Your task to perform on an android device: Set the phone to "Do not disturb". Image 0: 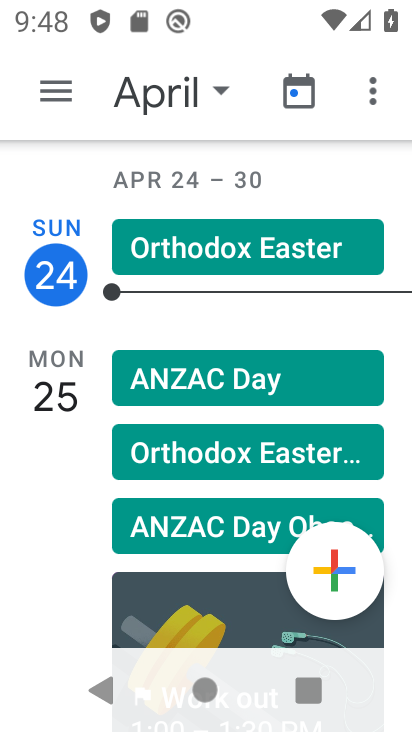
Step 0: press home button
Your task to perform on an android device: Set the phone to "Do not disturb". Image 1: 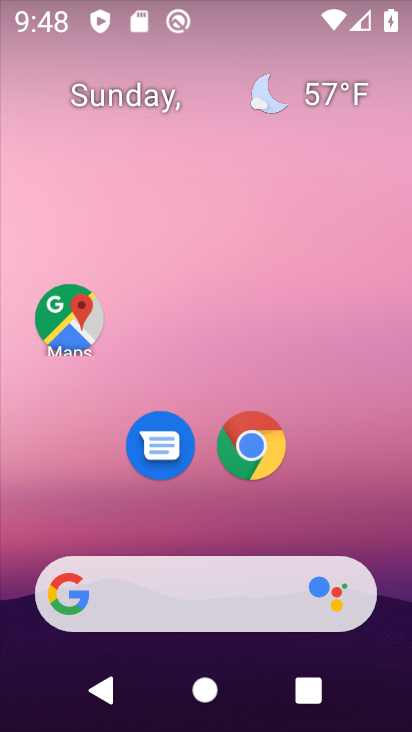
Step 1: drag from (136, 583) to (187, 123)
Your task to perform on an android device: Set the phone to "Do not disturb". Image 2: 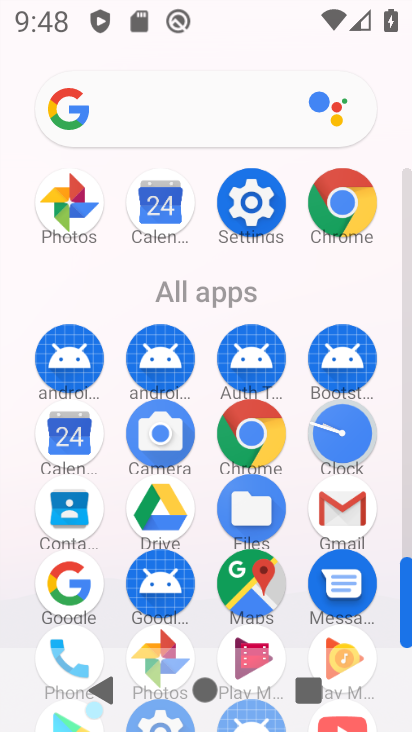
Step 2: click (238, 206)
Your task to perform on an android device: Set the phone to "Do not disturb". Image 3: 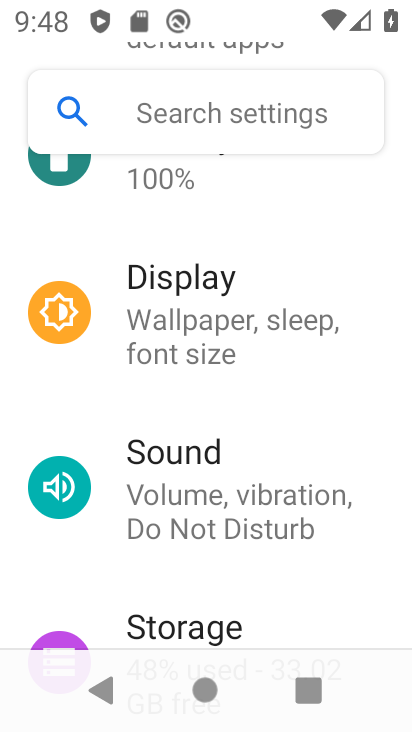
Step 3: click (202, 476)
Your task to perform on an android device: Set the phone to "Do not disturb". Image 4: 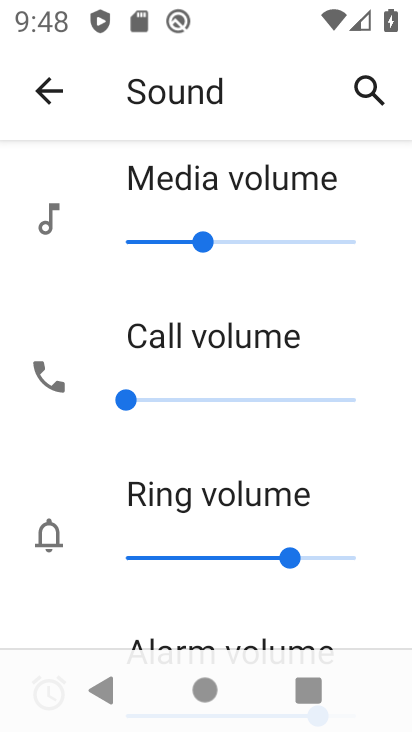
Step 4: drag from (144, 629) to (120, 146)
Your task to perform on an android device: Set the phone to "Do not disturb". Image 5: 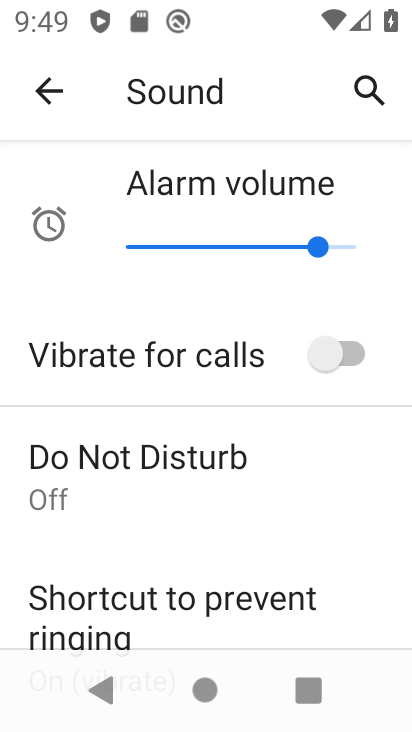
Step 5: click (121, 481)
Your task to perform on an android device: Set the phone to "Do not disturb". Image 6: 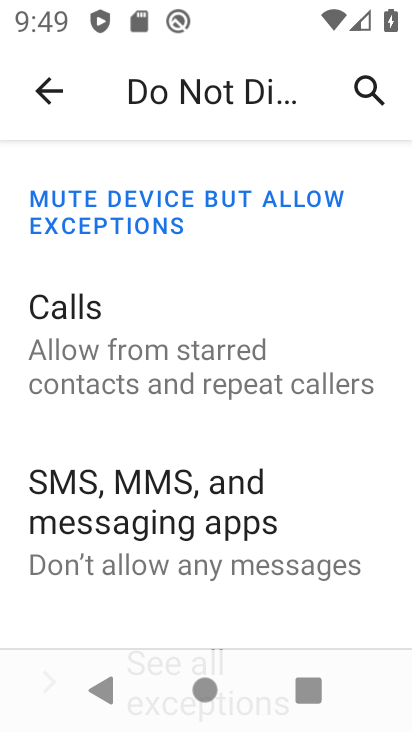
Step 6: drag from (219, 526) to (225, 107)
Your task to perform on an android device: Set the phone to "Do not disturb". Image 7: 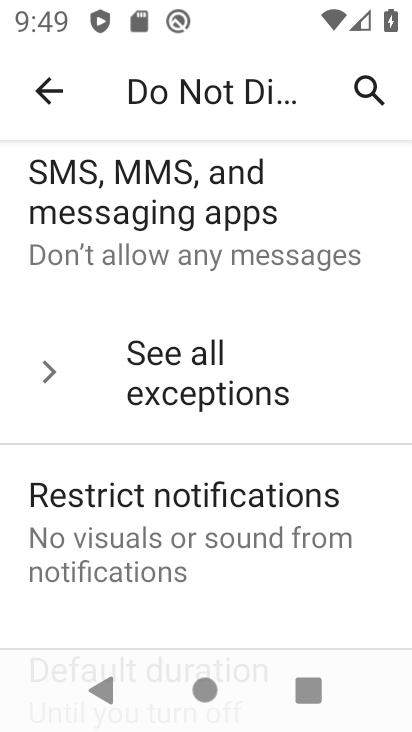
Step 7: drag from (214, 473) to (203, 23)
Your task to perform on an android device: Set the phone to "Do not disturb". Image 8: 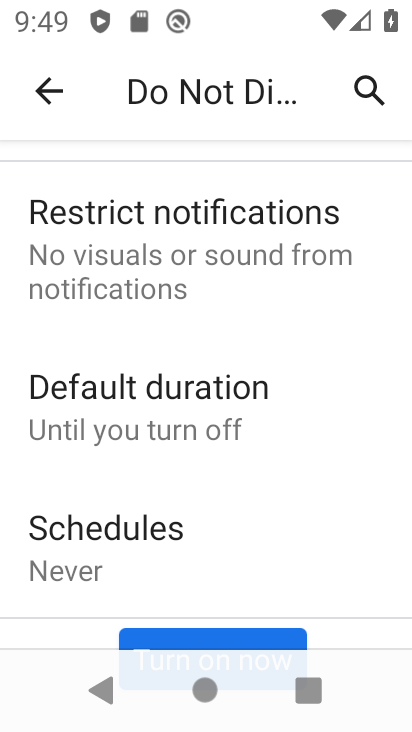
Step 8: click (236, 627)
Your task to perform on an android device: Set the phone to "Do not disturb". Image 9: 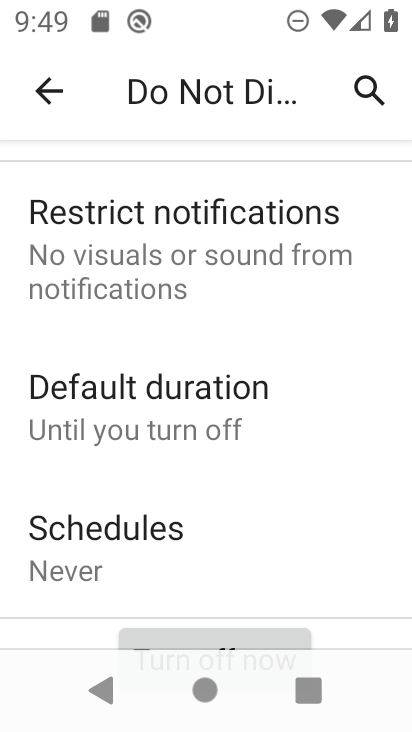
Step 9: task complete